Your task to perform on an android device: Go to battery settings Image 0: 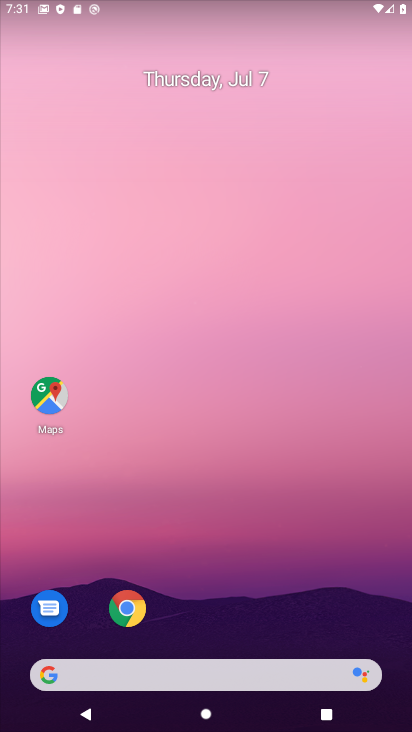
Step 0: click (260, 0)
Your task to perform on an android device: Go to battery settings Image 1: 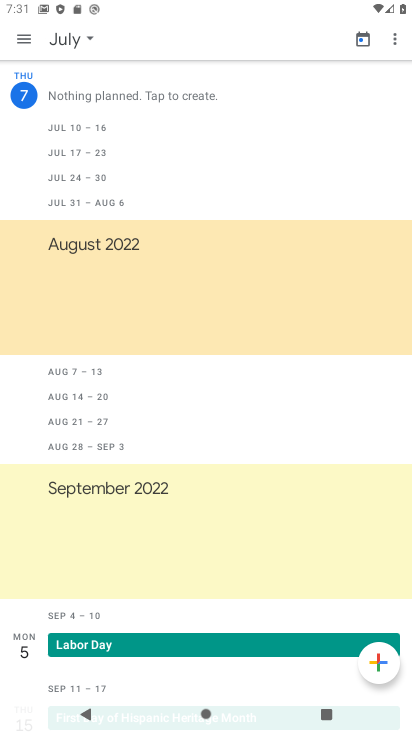
Step 1: press home button
Your task to perform on an android device: Go to battery settings Image 2: 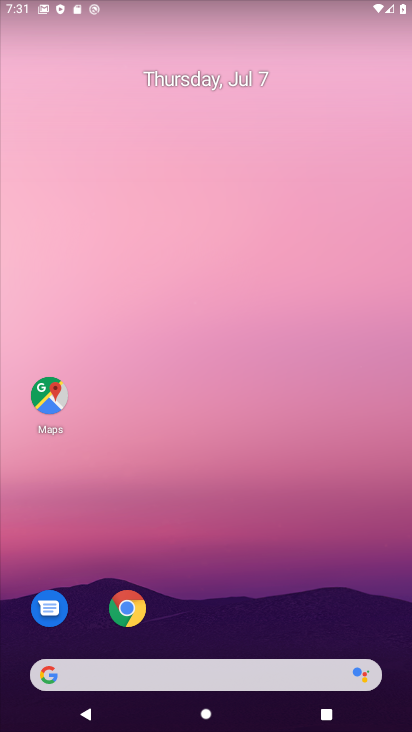
Step 2: drag from (261, 655) to (283, 21)
Your task to perform on an android device: Go to battery settings Image 3: 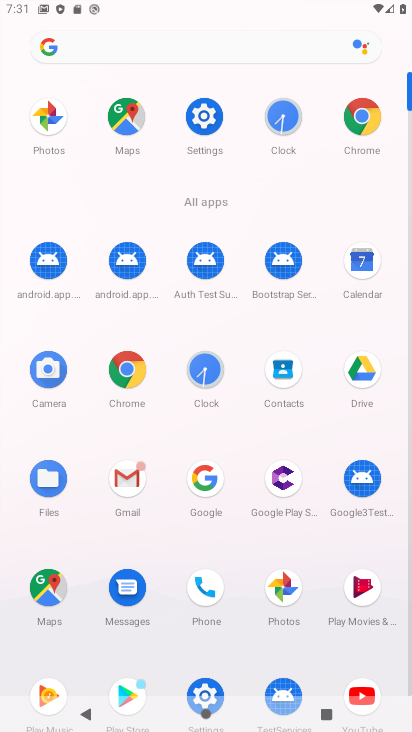
Step 3: click (208, 127)
Your task to perform on an android device: Go to battery settings Image 4: 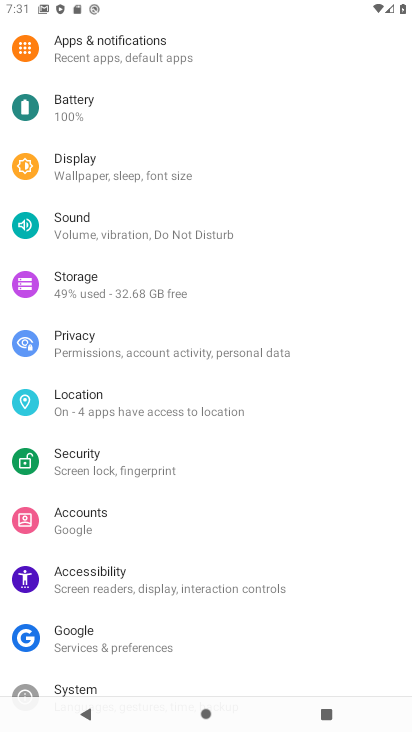
Step 4: drag from (211, 491) to (229, 532)
Your task to perform on an android device: Go to battery settings Image 5: 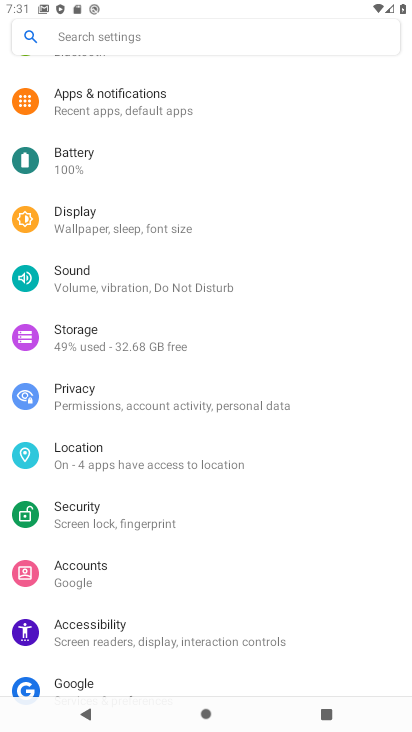
Step 5: click (161, 174)
Your task to perform on an android device: Go to battery settings Image 6: 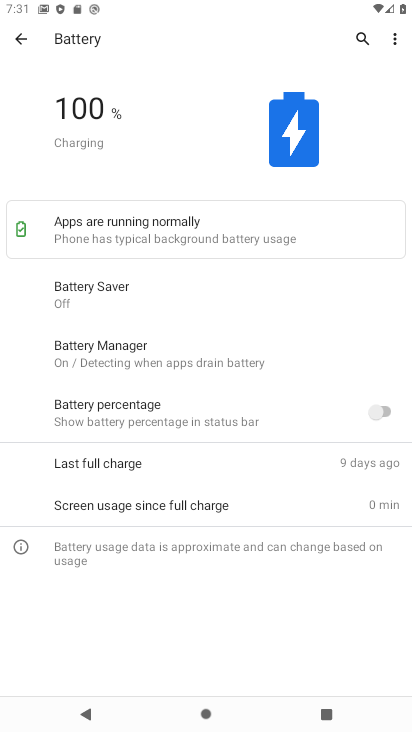
Step 6: click (395, 44)
Your task to perform on an android device: Go to battery settings Image 7: 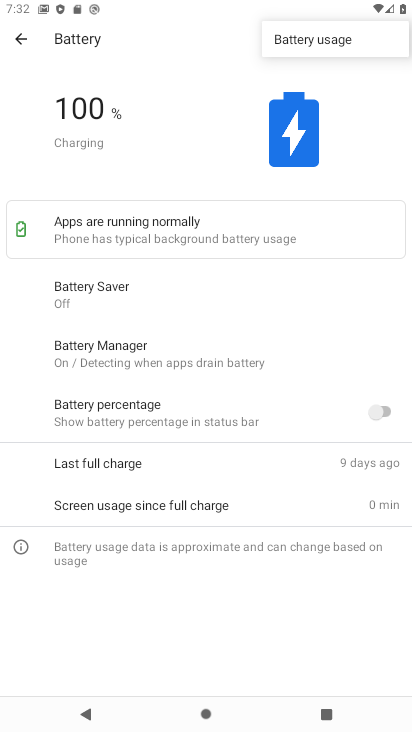
Step 7: task complete